Your task to perform on an android device: toggle data saver in the chrome app Image 0: 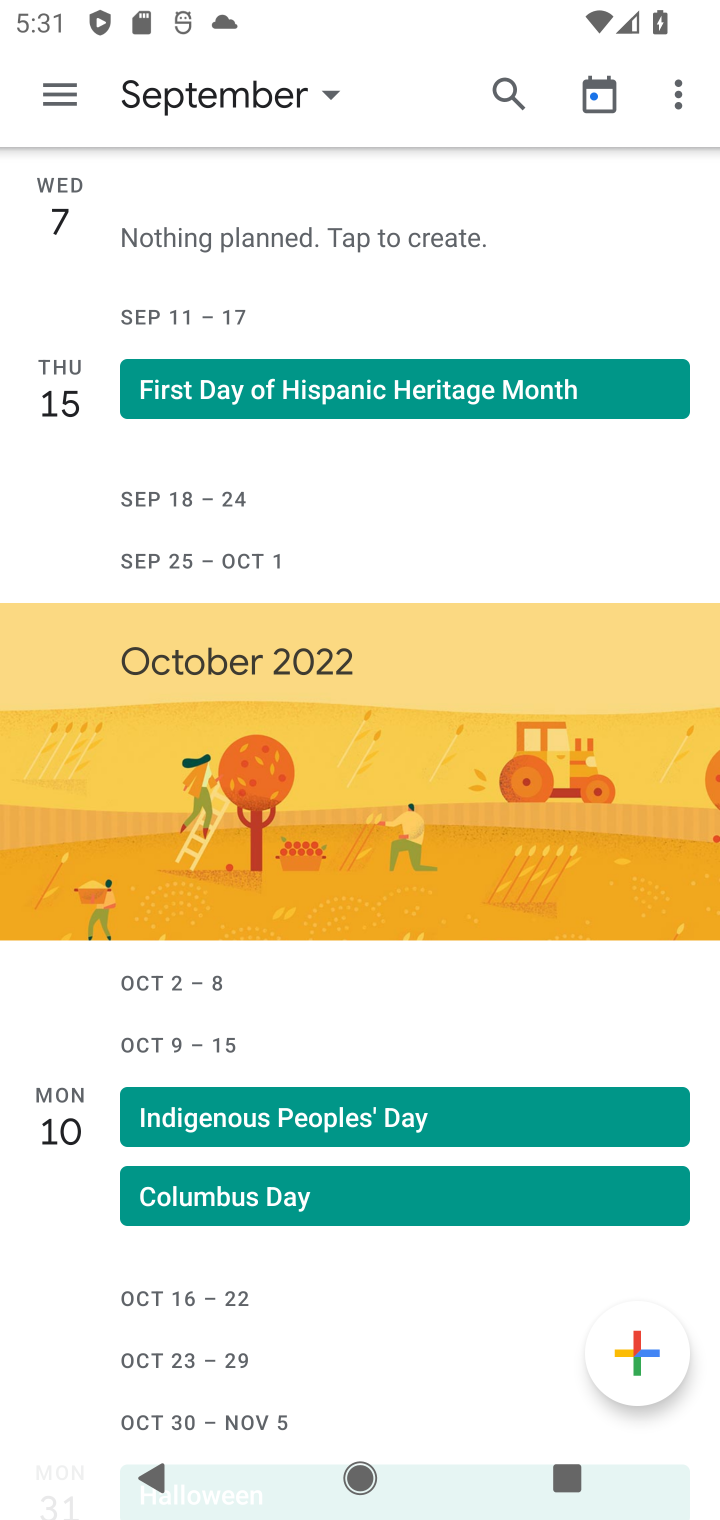
Step 0: press home button
Your task to perform on an android device: toggle data saver in the chrome app Image 1: 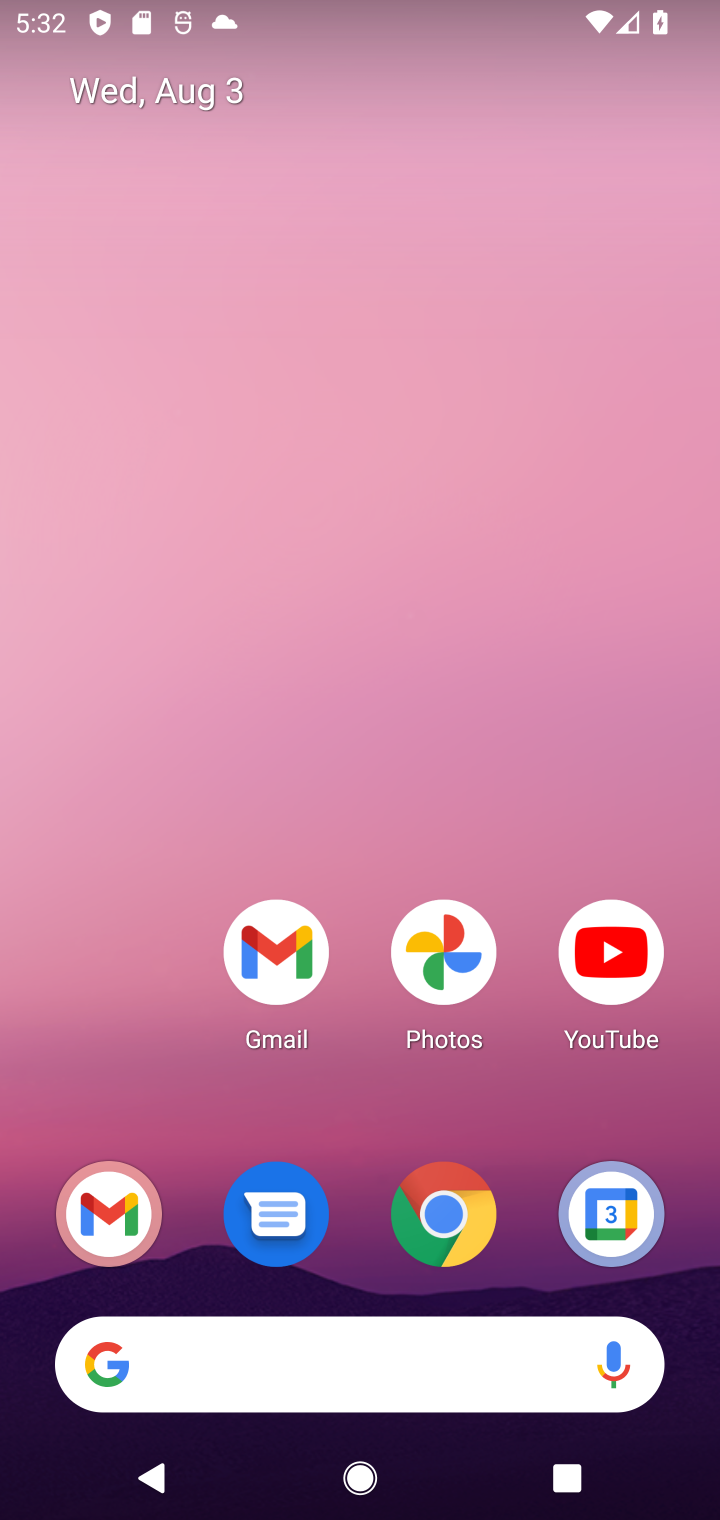
Step 1: drag from (202, 1273) to (104, 136)
Your task to perform on an android device: toggle data saver in the chrome app Image 2: 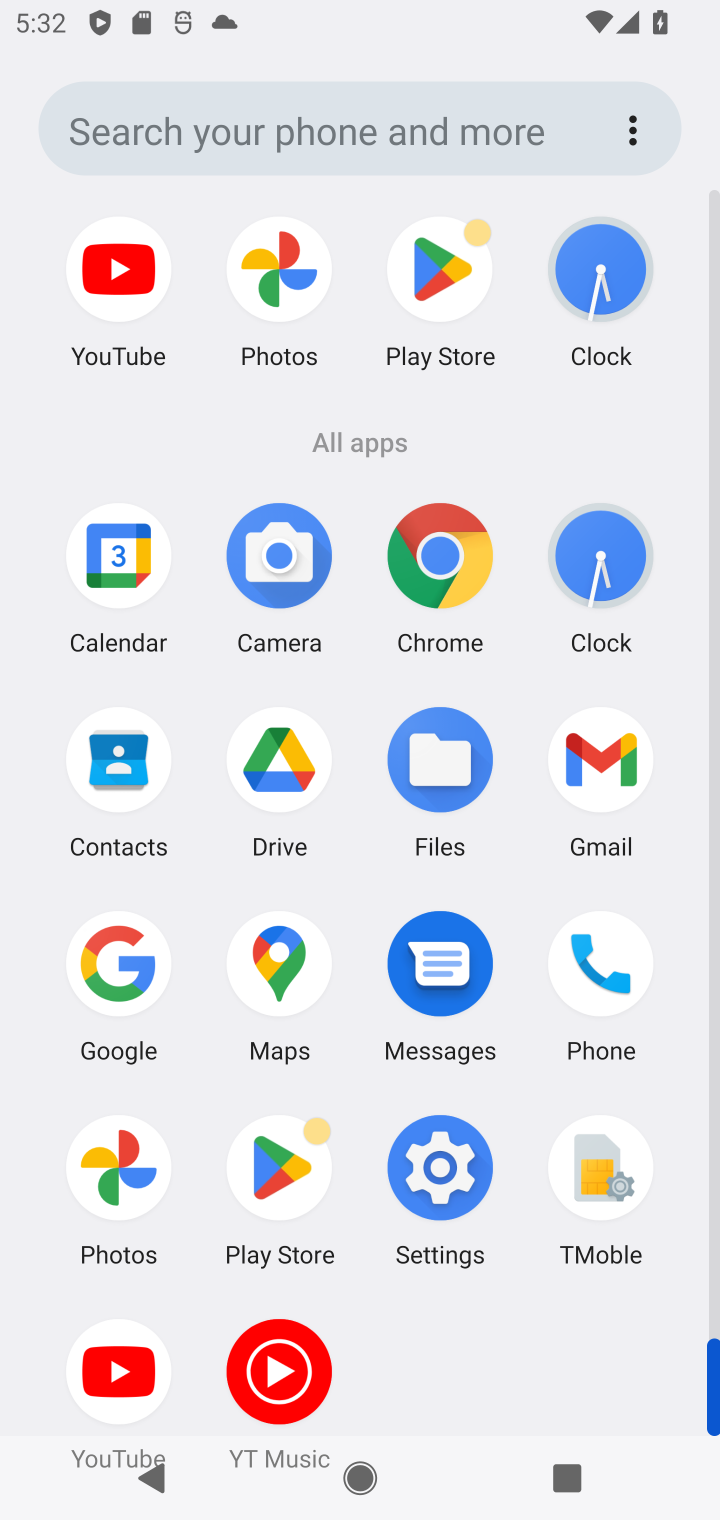
Step 2: click (456, 542)
Your task to perform on an android device: toggle data saver in the chrome app Image 3: 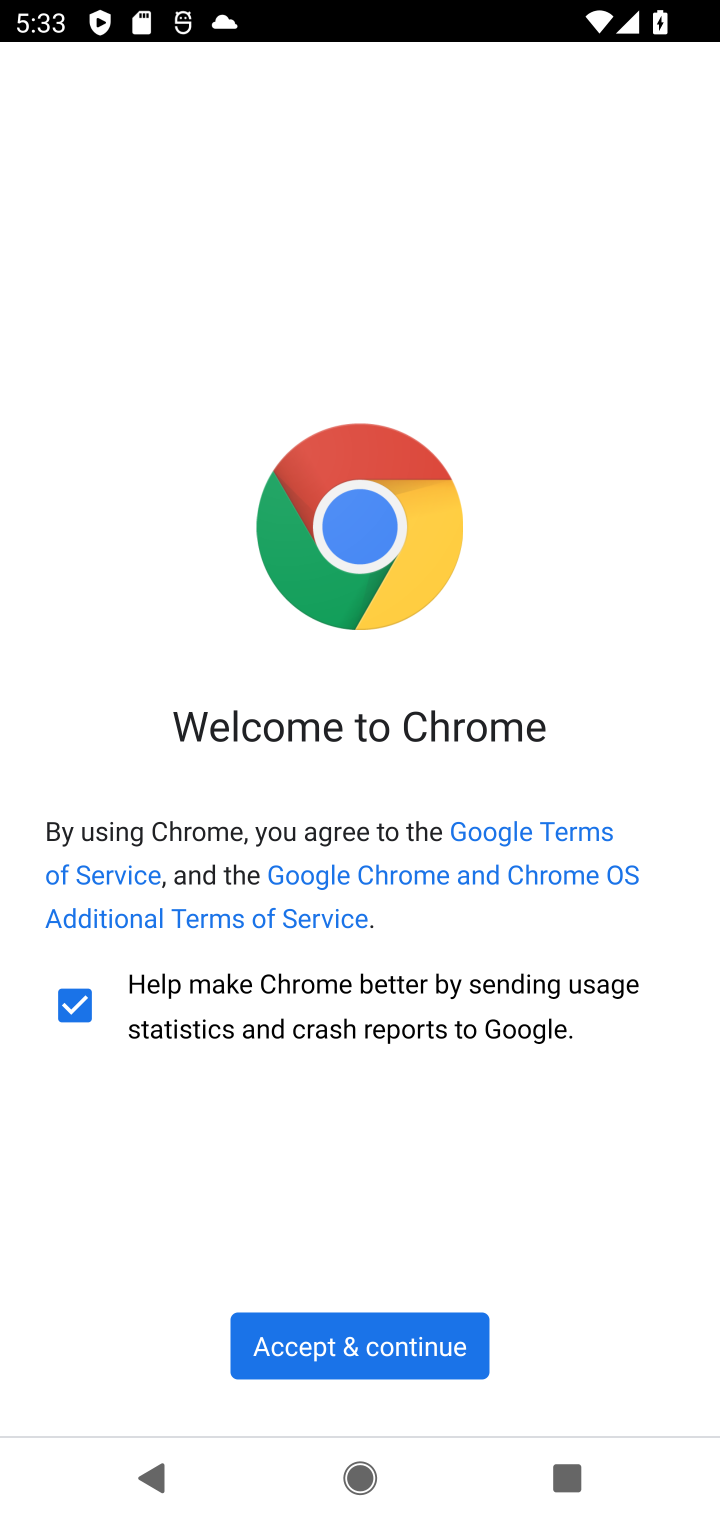
Step 3: click (349, 1386)
Your task to perform on an android device: toggle data saver in the chrome app Image 4: 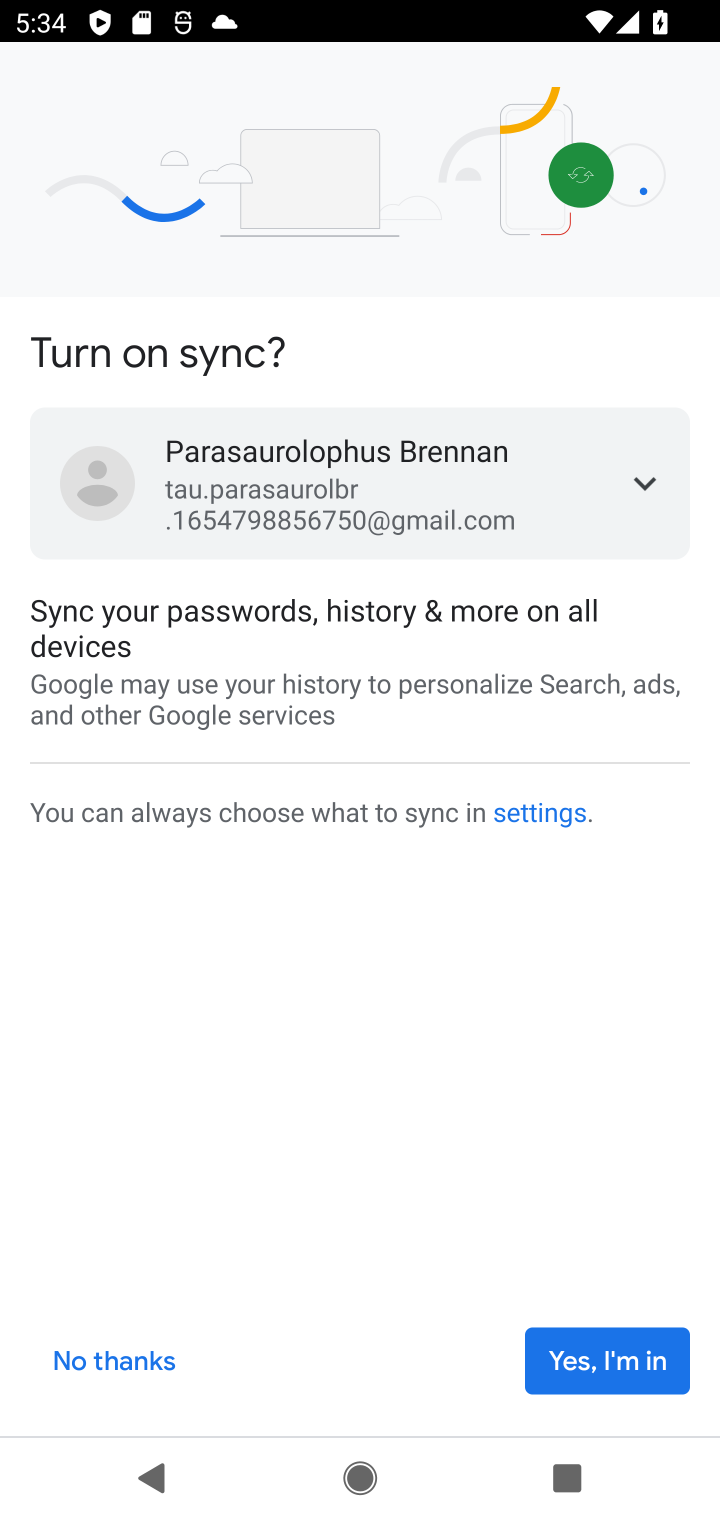
Step 4: click (47, 1375)
Your task to perform on an android device: toggle data saver in the chrome app Image 5: 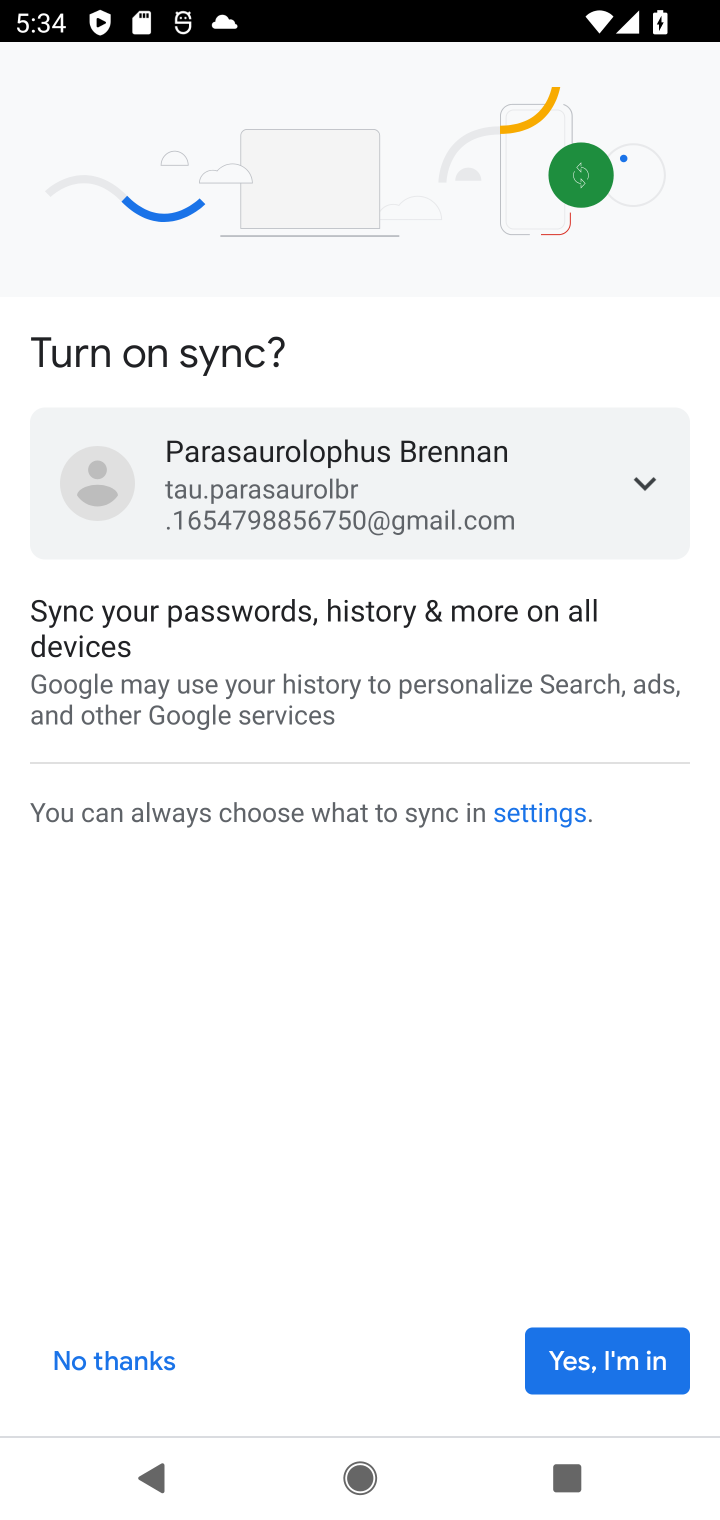
Step 5: click (56, 1360)
Your task to perform on an android device: toggle data saver in the chrome app Image 6: 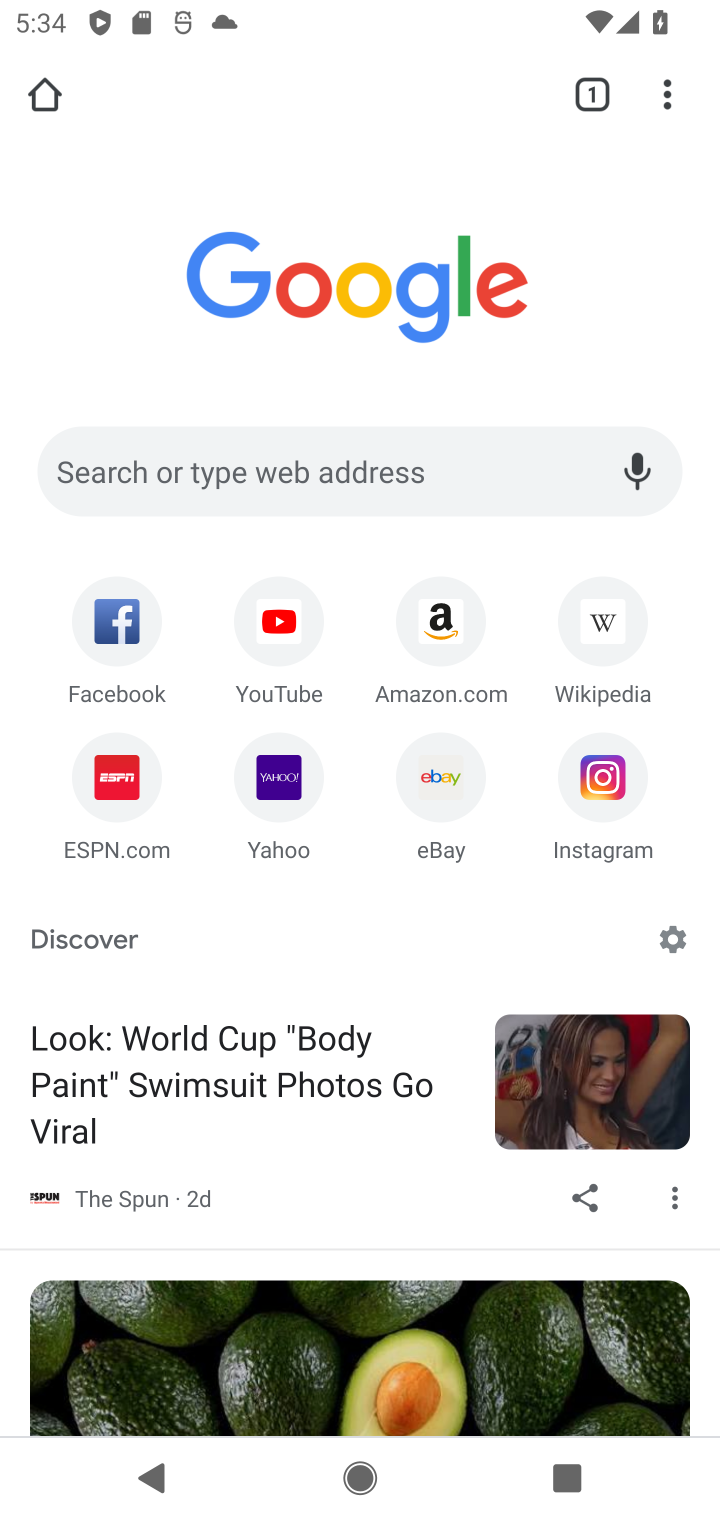
Step 6: drag from (670, 102) to (307, 889)
Your task to perform on an android device: toggle data saver in the chrome app Image 7: 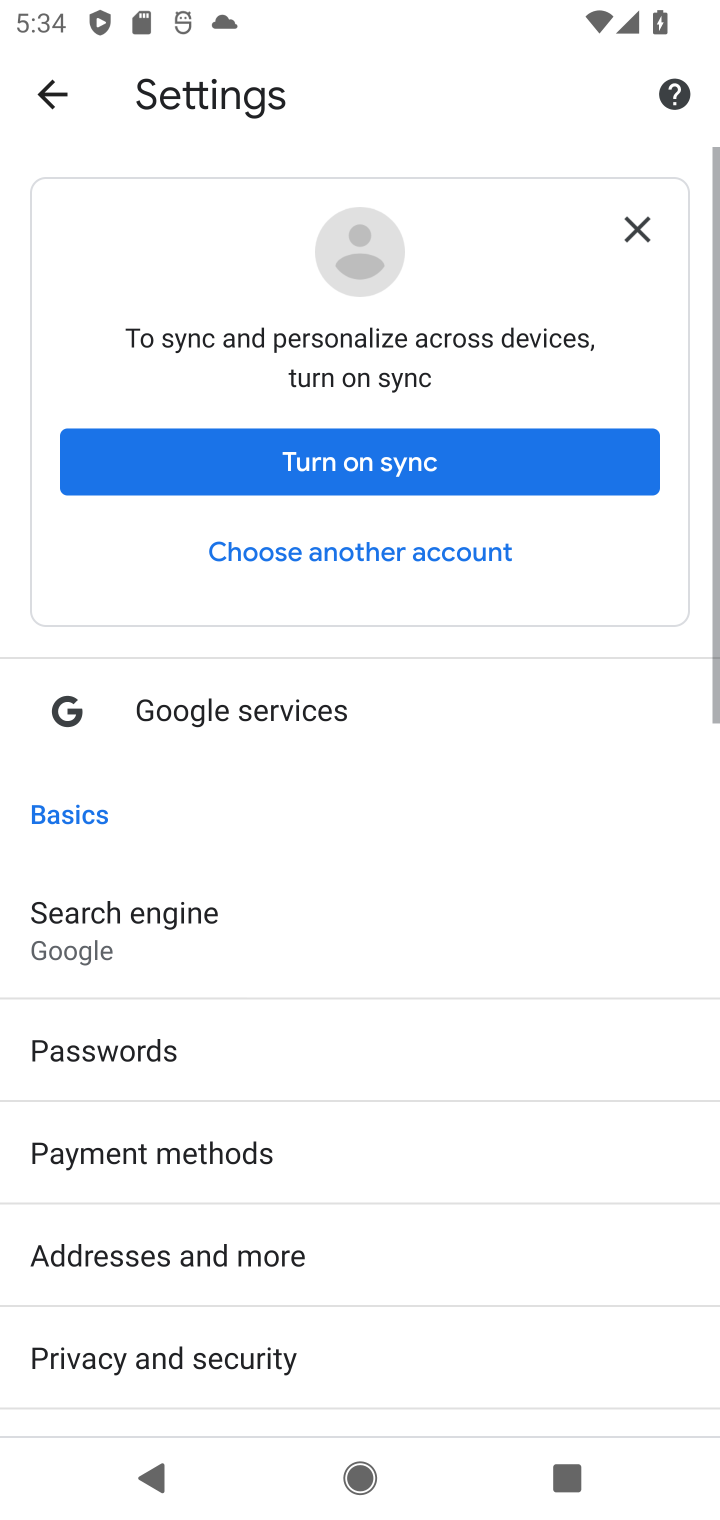
Step 7: drag from (160, 1243) to (270, 514)
Your task to perform on an android device: toggle data saver in the chrome app Image 8: 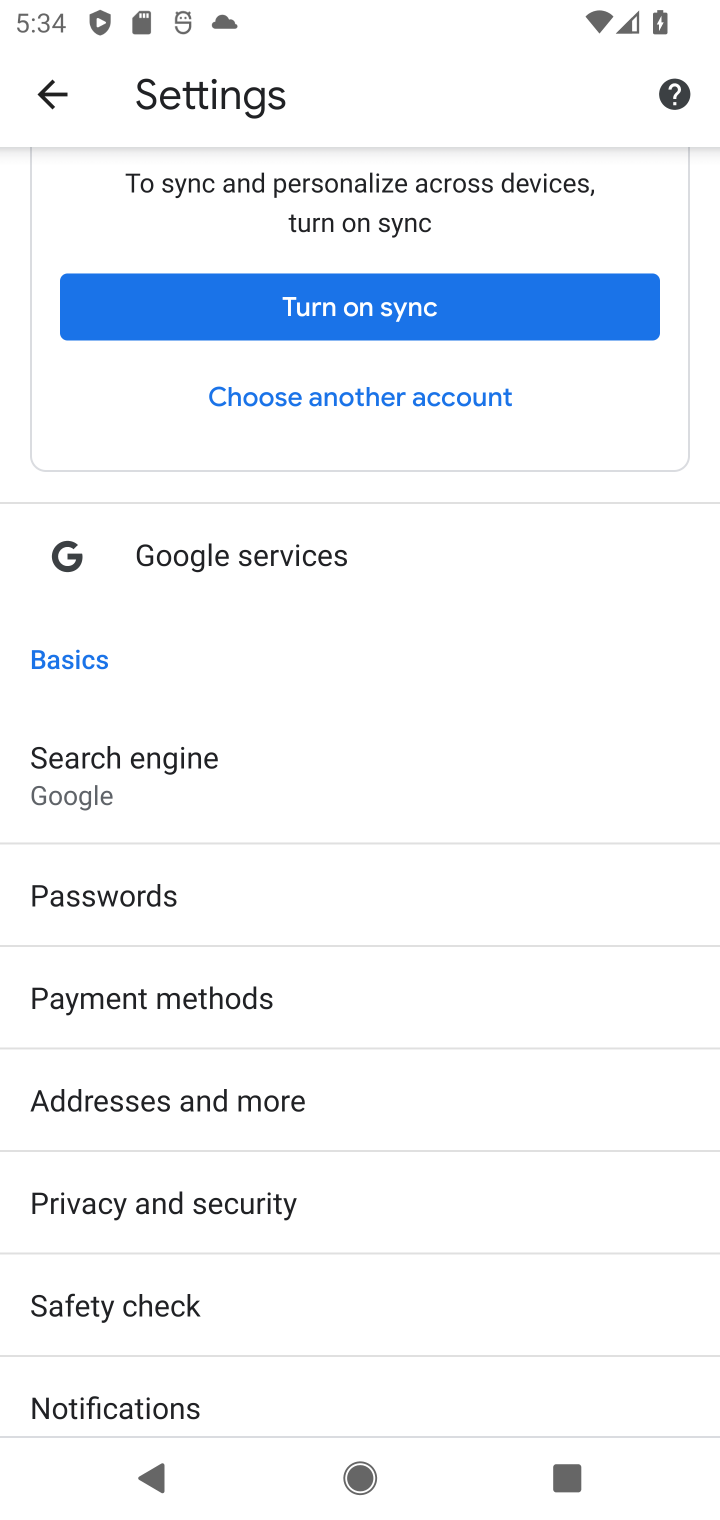
Step 8: drag from (363, 1370) to (563, 509)
Your task to perform on an android device: toggle data saver in the chrome app Image 9: 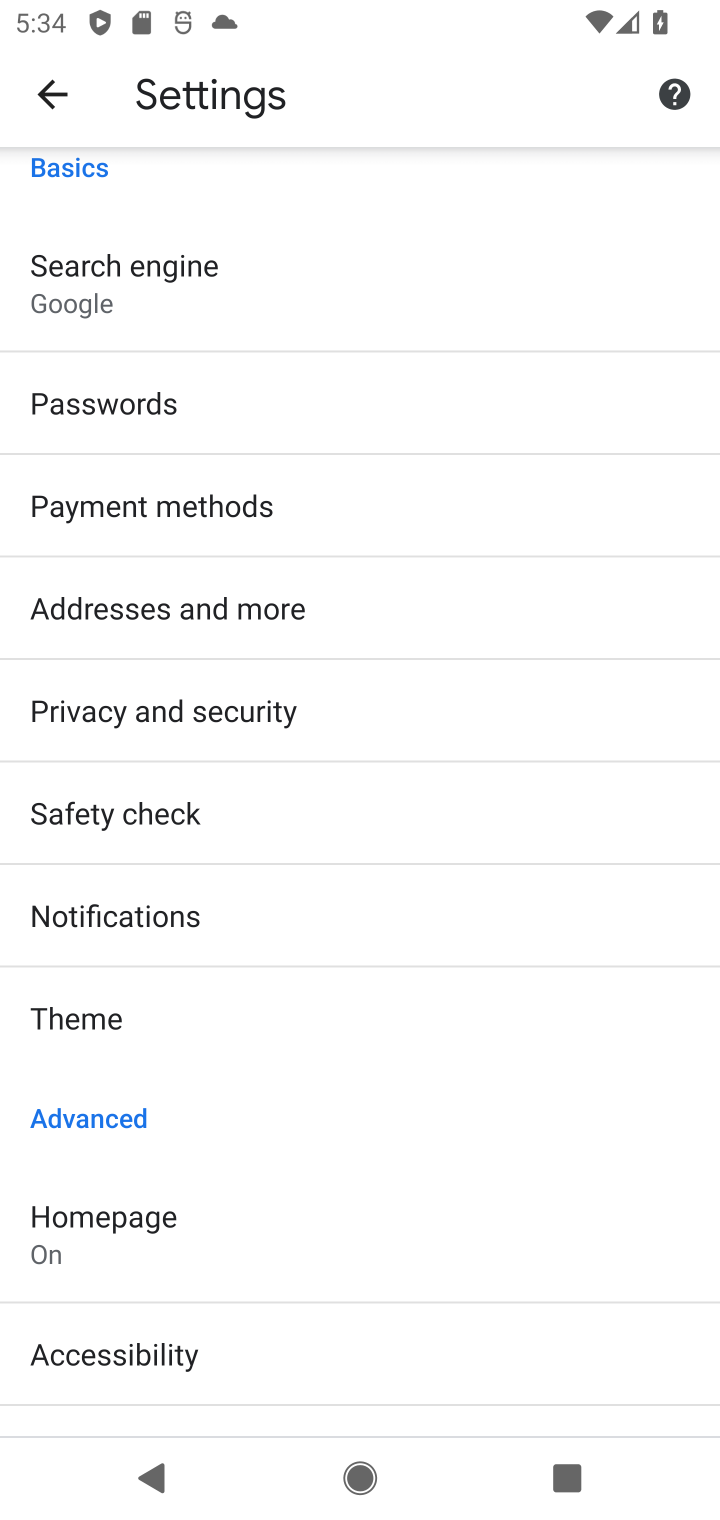
Step 9: drag from (289, 1198) to (367, 581)
Your task to perform on an android device: toggle data saver in the chrome app Image 10: 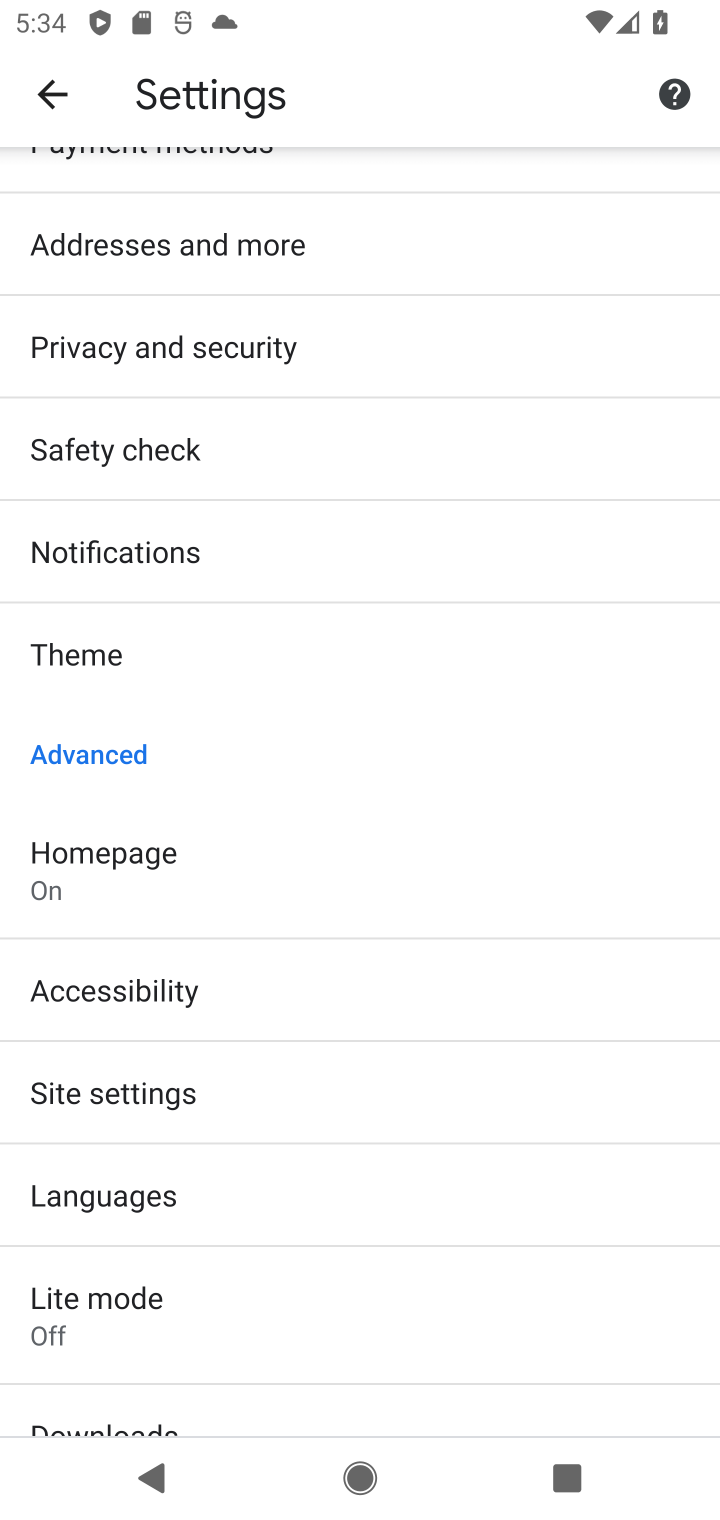
Step 10: click (152, 1296)
Your task to perform on an android device: toggle data saver in the chrome app Image 11: 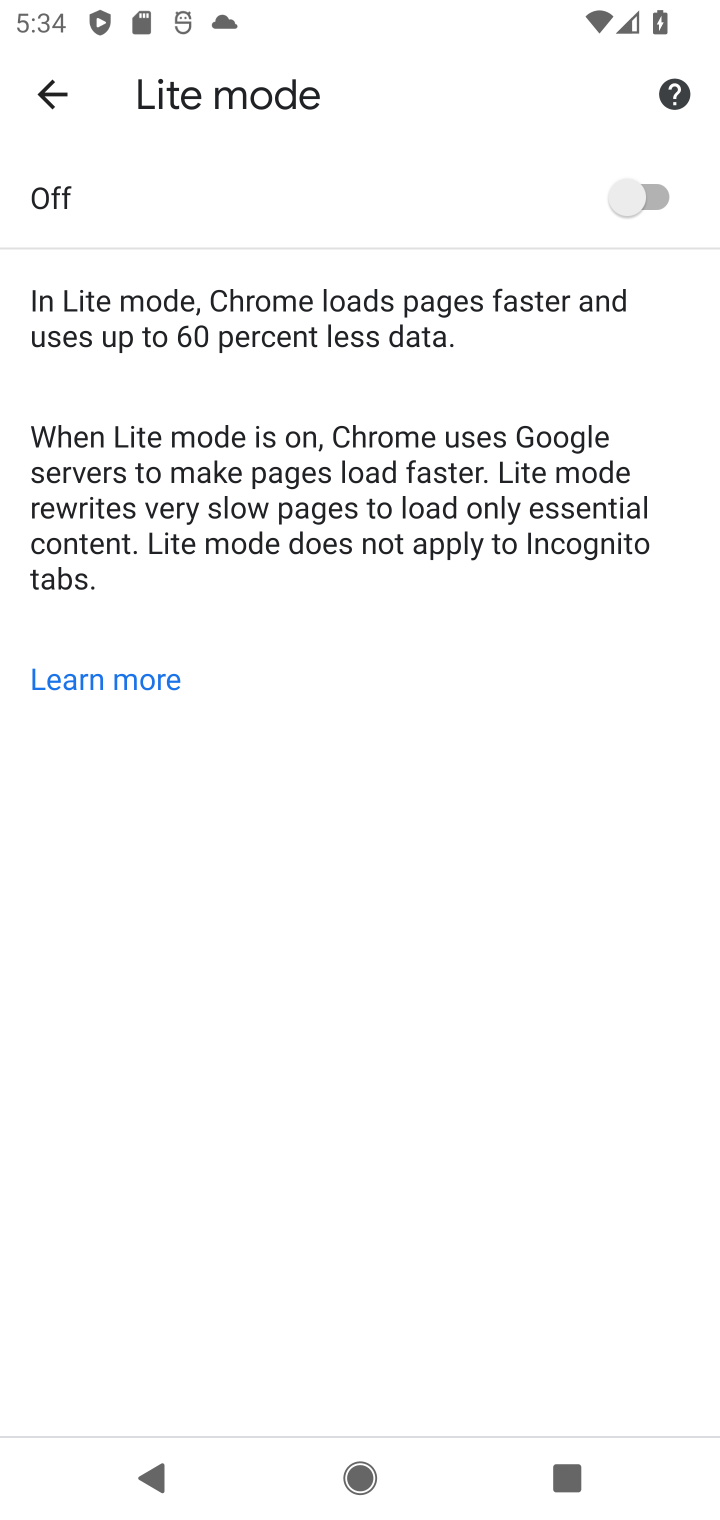
Step 11: click (668, 203)
Your task to perform on an android device: toggle data saver in the chrome app Image 12: 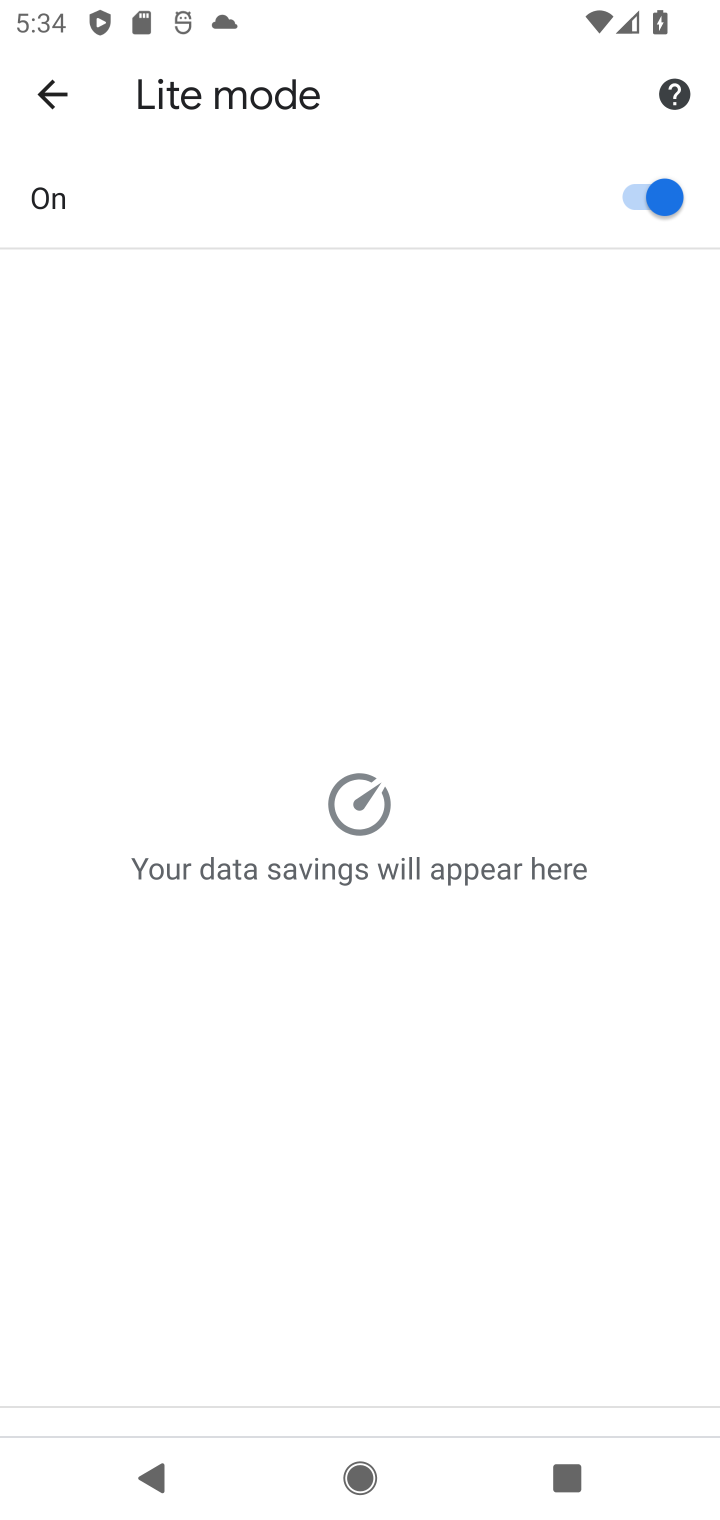
Step 12: task complete